Your task to perform on an android device: change your default location settings in chrome Image 0: 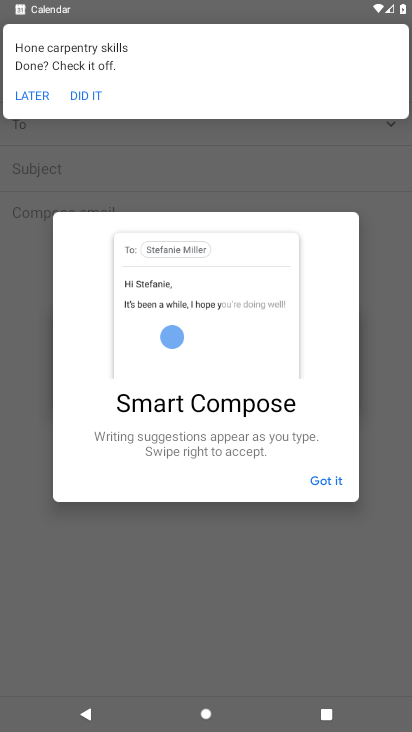
Step 0: press home button
Your task to perform on an android device: change your default location settings in chrome Image 1: 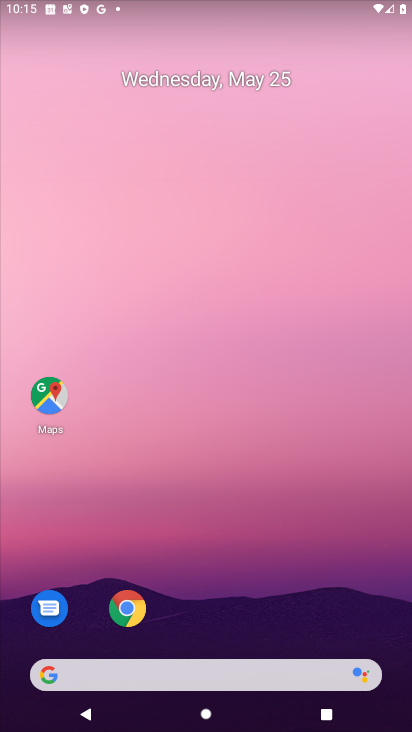
Step 1: click (134, 612)
Your task to perform on an android device: change your default location settings in chrome Image 2: 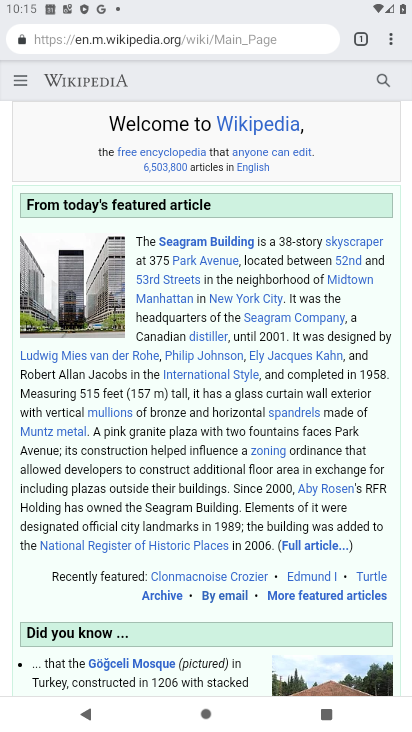
Step 2: click (393, 39)
Your task to perform on an android device: change your default location settings in chrome Image 3: 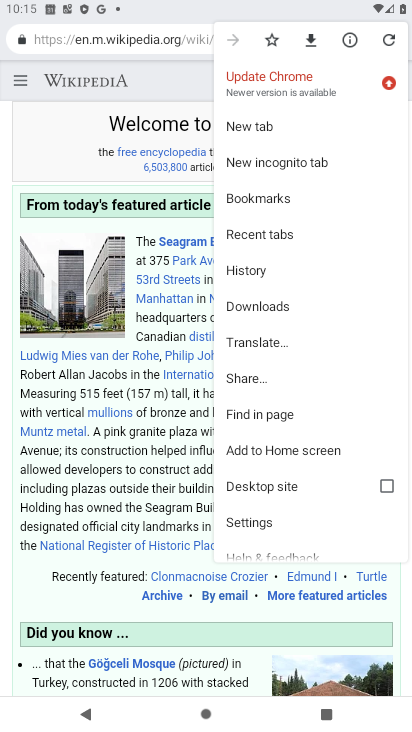
Step 3: click (249, 524)
Your task to perform on an android device: change your default location settings in chrome Image 4: 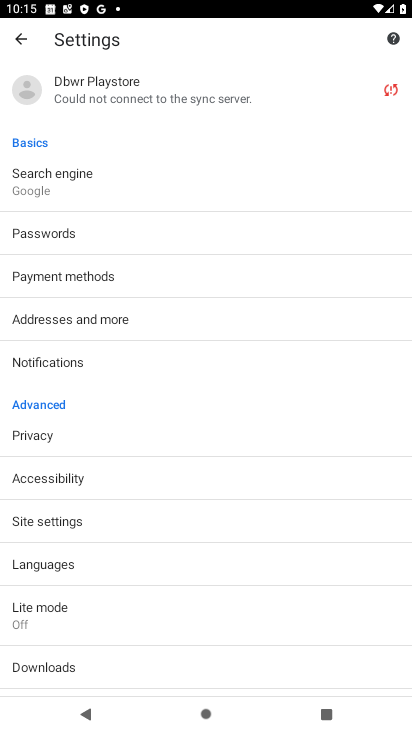
Step 4: click (58, 525)
Your task to perform on an android device: change your default location settings in chrome Image 5: 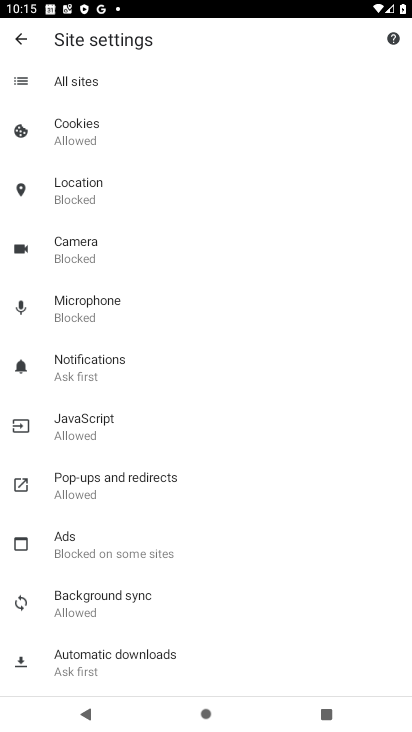
Step 5: click (75, 201)
Your task to perform on an android device: change your default location settings in chrome Image 6: 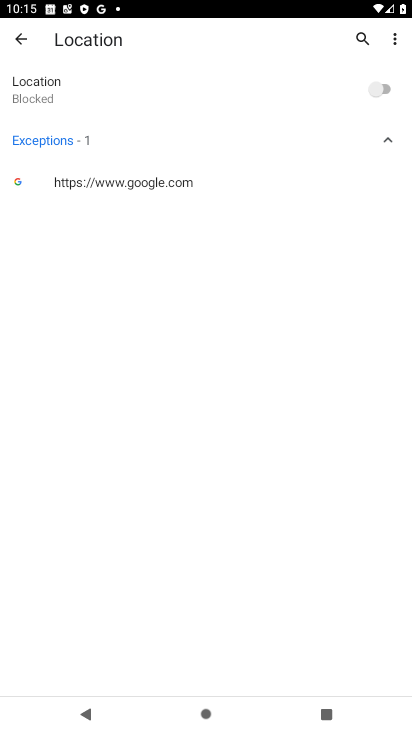
Step 6: click (378, 92)
Your task to perform on an android device: change your default location settings in chrome Image 7: 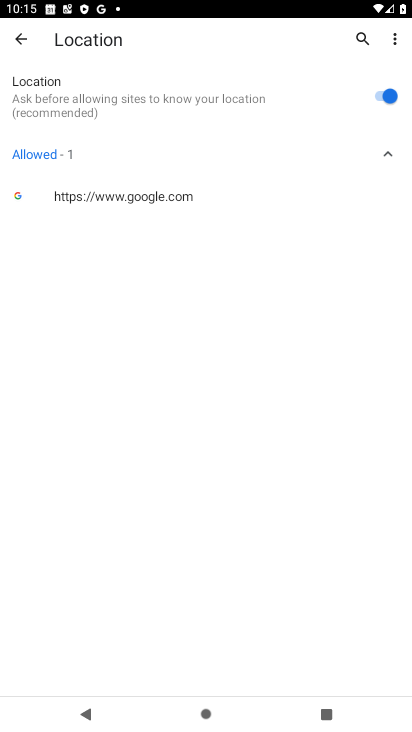
Step 7: task complete